Your task to perform on an android device: Search for Mexican restaurants on Maps Image 0: 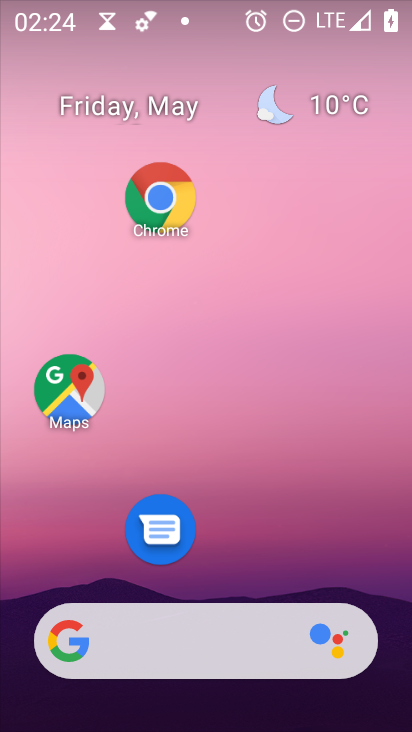
Step 0: drag from (244, 550) to (298, 279)
Your task to perform on an android device: Search for Mexican restaurants on Maps Image 1: 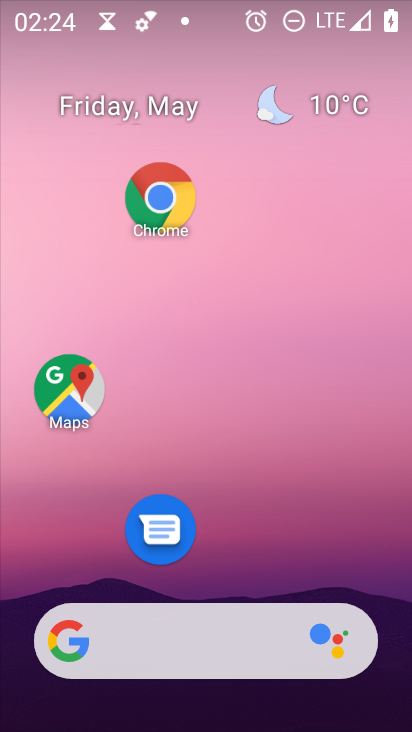
Step 1: click (45, 368)
Your task to perform on an android device: Search for Mexican restaurants on Maps Image 2: 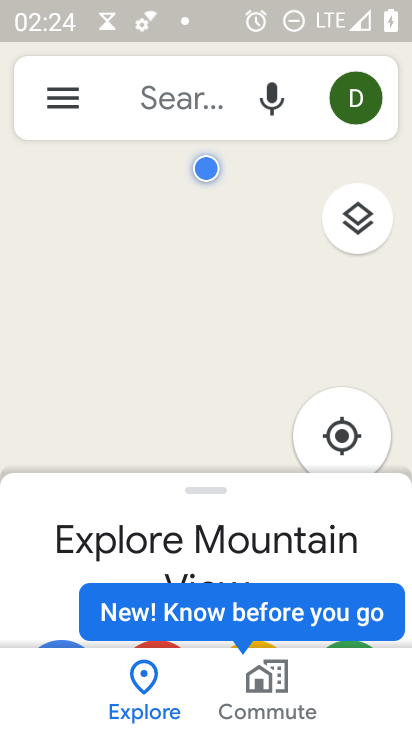
Step 2: click (156, 98)
Your task to perform on an android device: Search for Mexican restaurants on Maps Image 3: 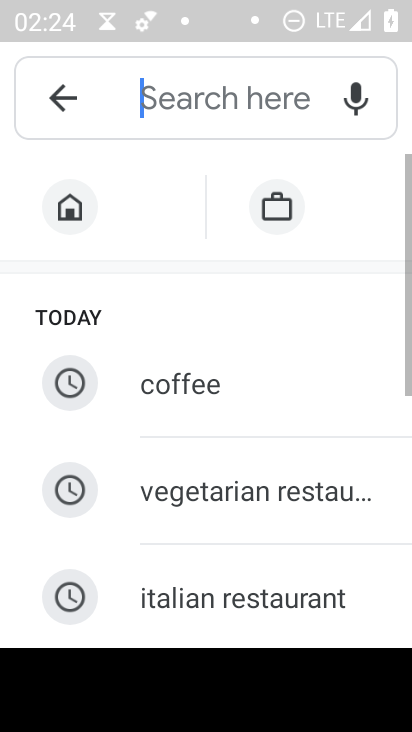
Step 3: drag from (195, 551) to (272, 296)
Your task to perform on an android device: Search for Mexican restaurants on Maps Image 4: 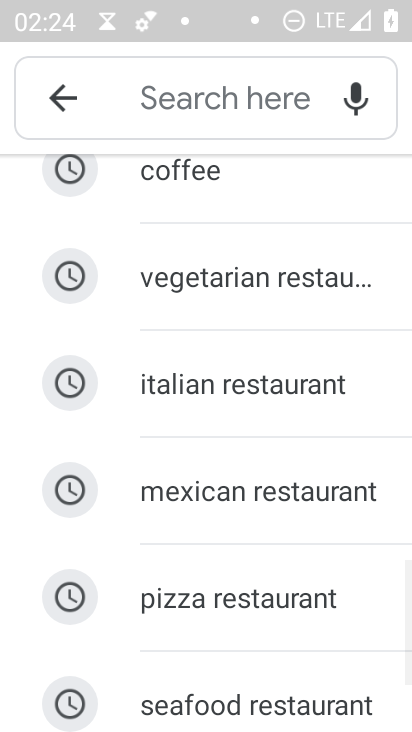
Step 4: click (224, 515)
Your task to perform on an android device: Search for Mexican restaurants on Maps Image 5: 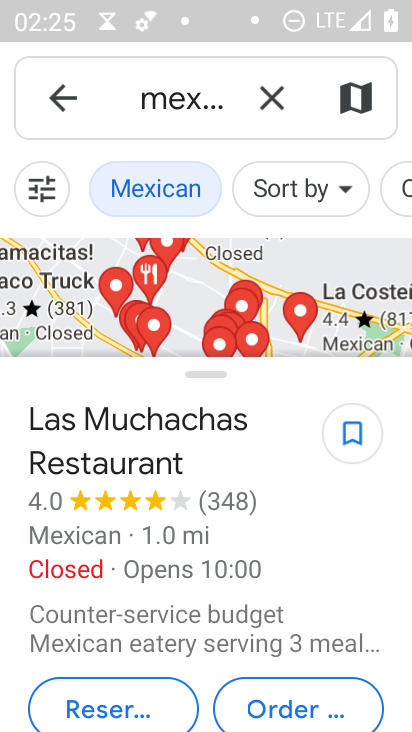
Step 5: task complete